Your task to perform on an android device: check battery use Image 0: 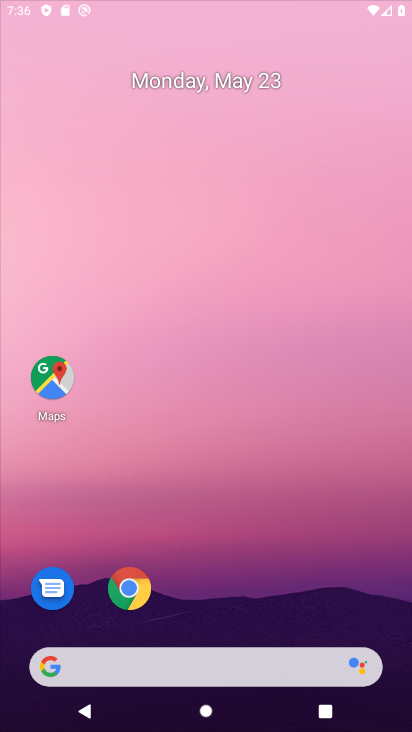
Step 0: click (386, 246)
Your task to perform on an android device: check battery use Image 1: 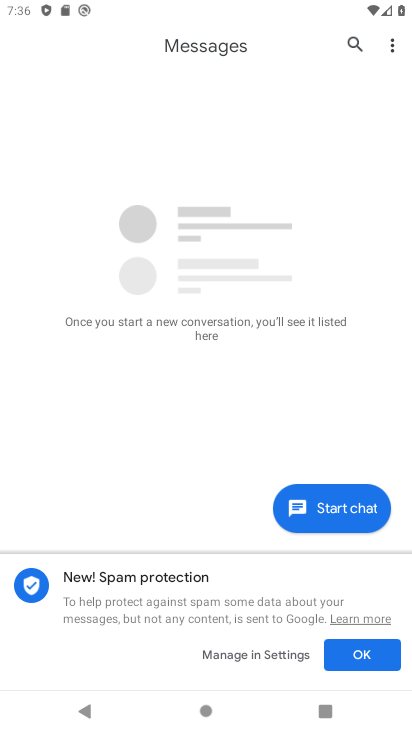
Step 1: press home button
Your task to perform on an android device: check battery use Image 2: 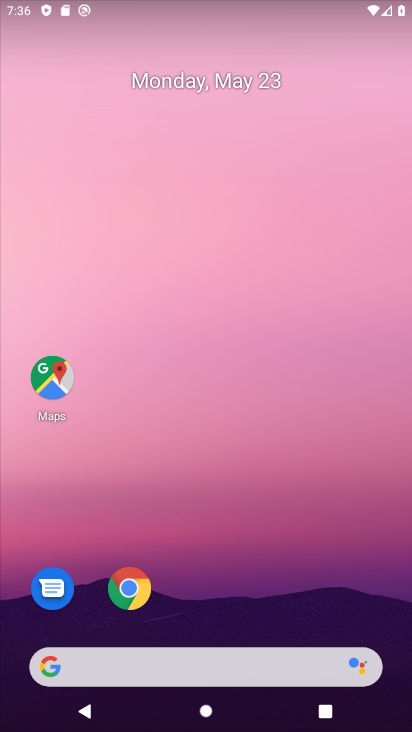
Step 2: drag from (389, 614) to (366, 109)
Your task to perform on an android device: check battery use Image 3: 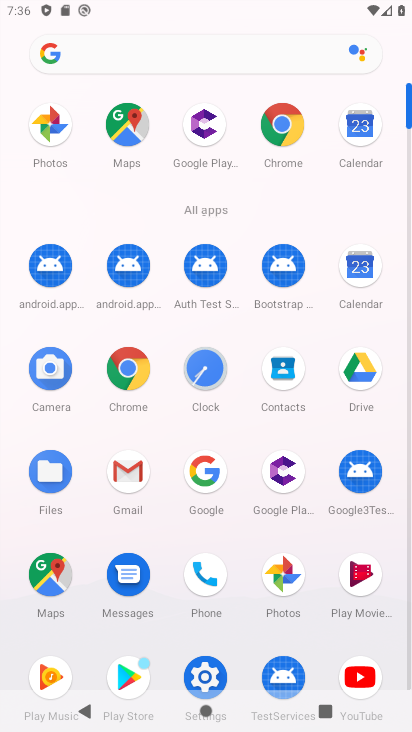
Step 3: click (208, 672)
Your task to perform on an android device: check battery use Image 4: 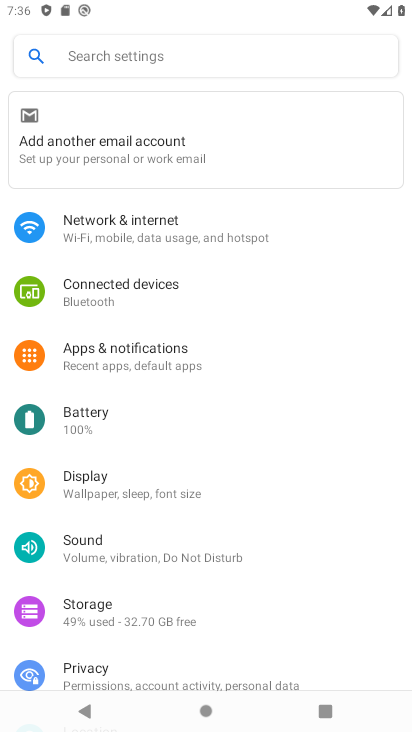
Step 4: click (72, 413)
Your task to perform on an android device: check battery use Image 5: 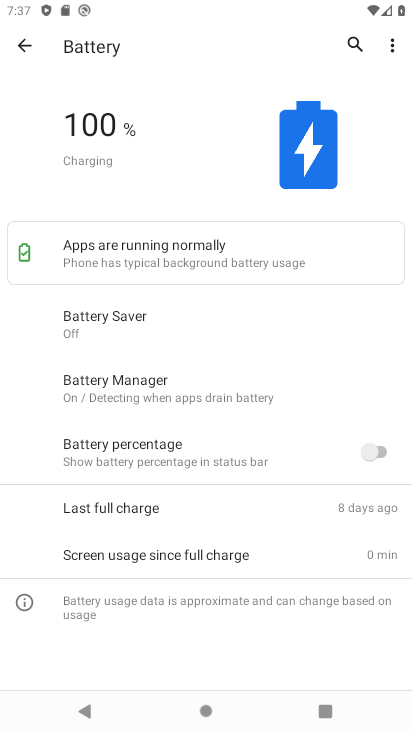
Step 5: click (394, 40)
Your task to perform on an android device: check battery use Image 6: 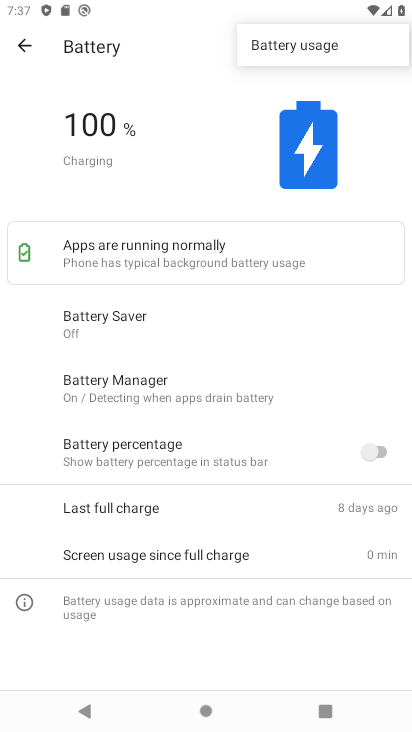
Step 6: click (313, 55)
Your task to perform on an android device: check battery use Image 7: 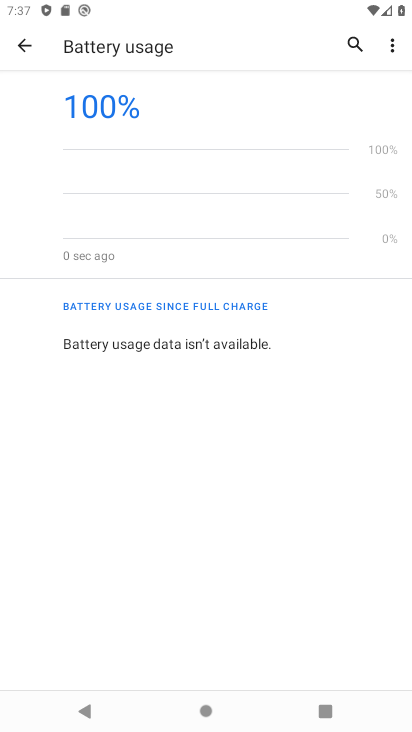
Step 7: task complete